Your task to perform on an android device: Go to location settings Image 0: 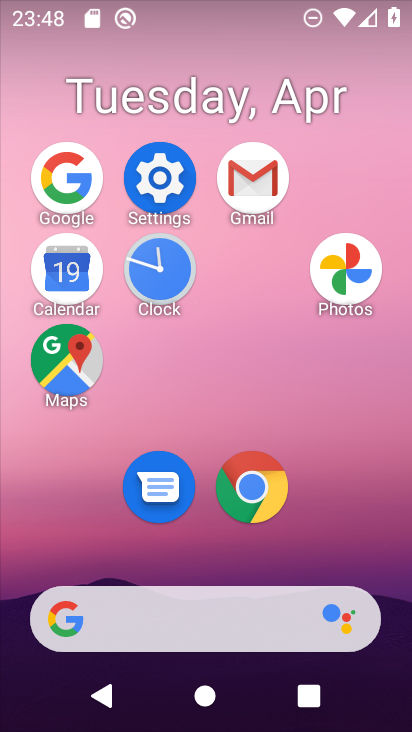
Step 0: click (253, 478)
Your task to perform on an android device: Go to location settings Image 1: 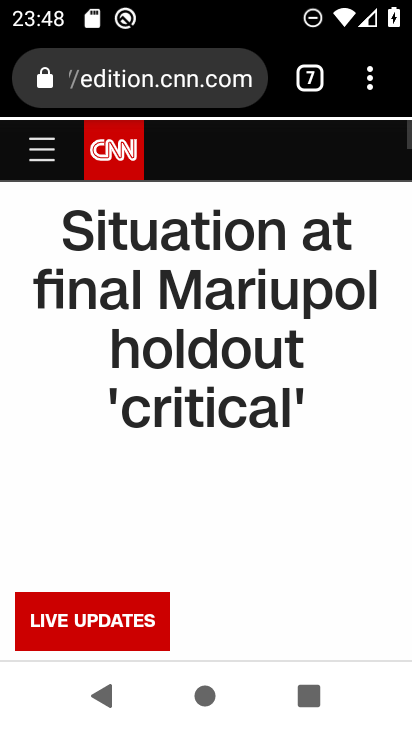
Step 1: press home button
Your task to perform on an android device: Go to location settings Image 2: 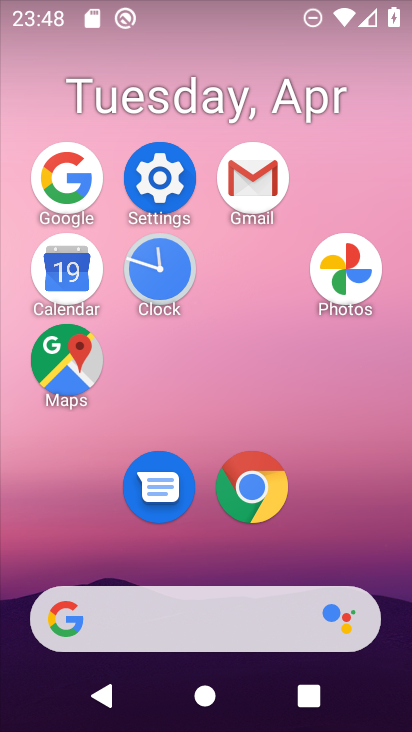
Step 2: click (178, 188)
Your task to perform on an android device: Go to location settings Image 3: 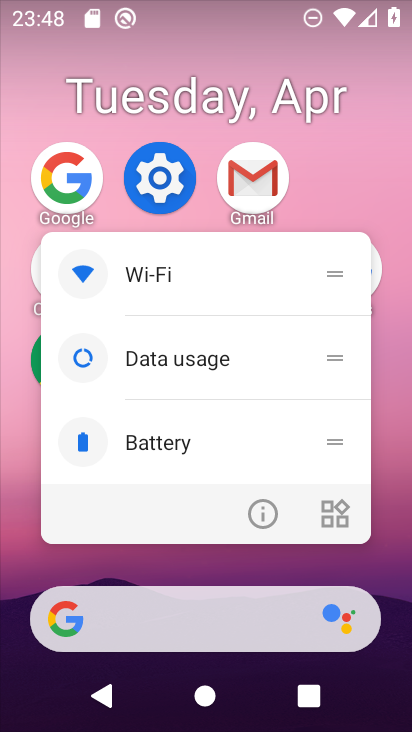
Step 3: click (170, 178)
Your task to perform on an android device: Go to location settings Image 4: 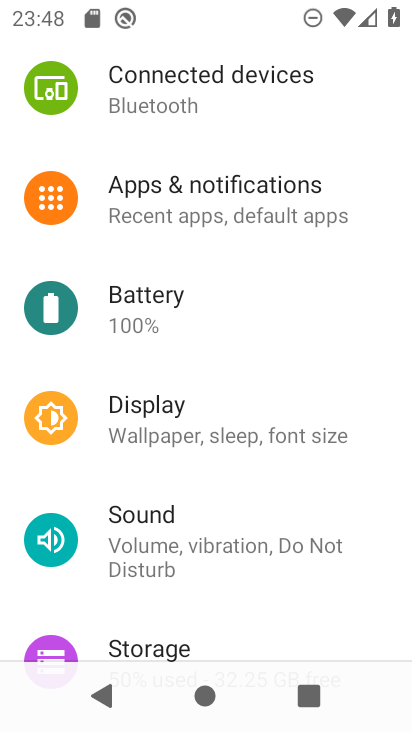
Step 4: drag from (250, 606) to (298, 244)
Your task to perform on an android device: Go to location settings Image 5: 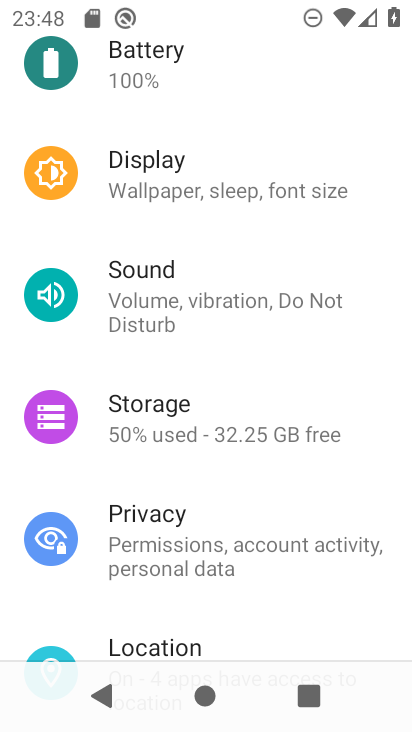
Step 5: drag from (269, 204) to (267, 591)
Your task to perform on an android device: Go to location settings Image 6: 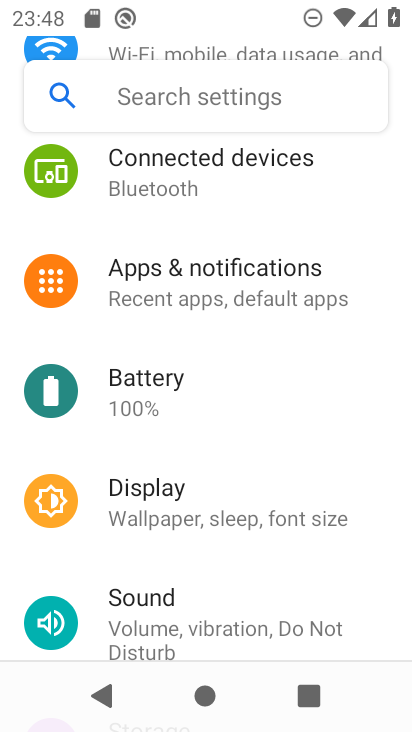
Step 6: drag from (248, 598) to (279, 159)
Your task to perform on an android device: Go to location settings Image 7: 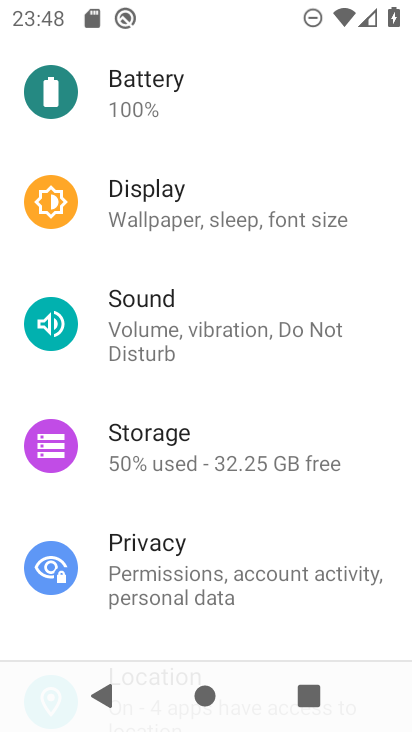
Step 7: drag from (255, 549) to (290, 233)
Your task to perform on an android device: Go to location settings Image 8: 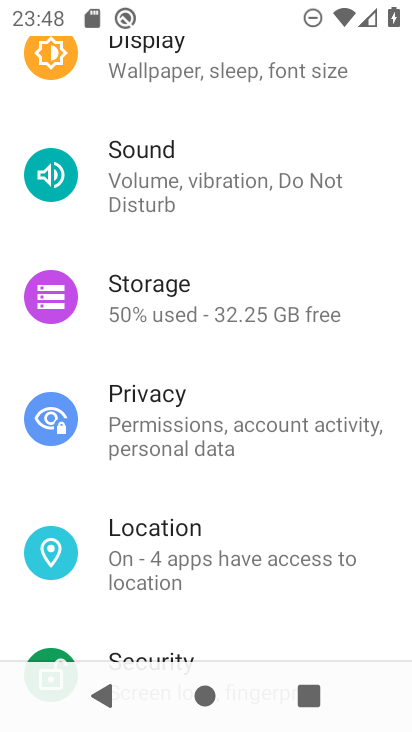
Step 8: click (248, 548)
Your task to perform on an android device: Go to location settings Image 9: 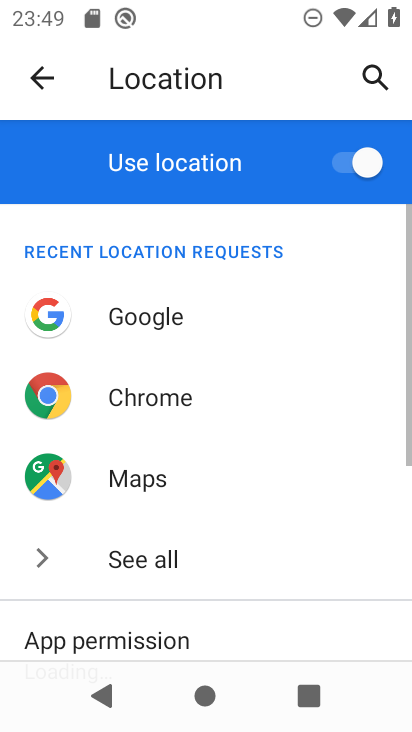
Step 9: drag from (248, 548) to (258, 202)
Your task to perform on an android device: Go to location settings Image 10: 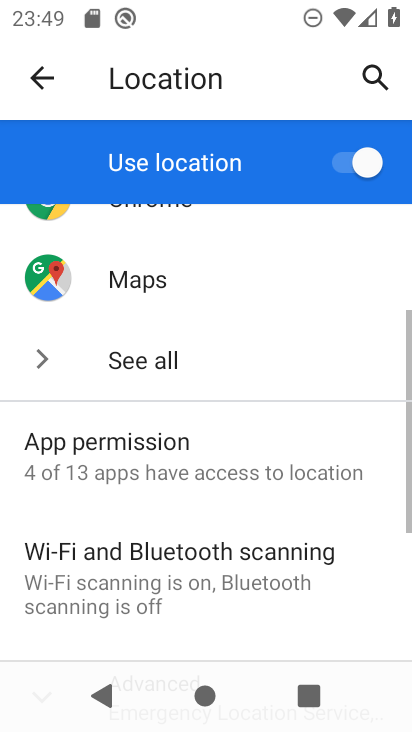
Step 10: drag from (211, 465) to (246, 150)
Your task to perform on an android device: Go to location settings Image 11: 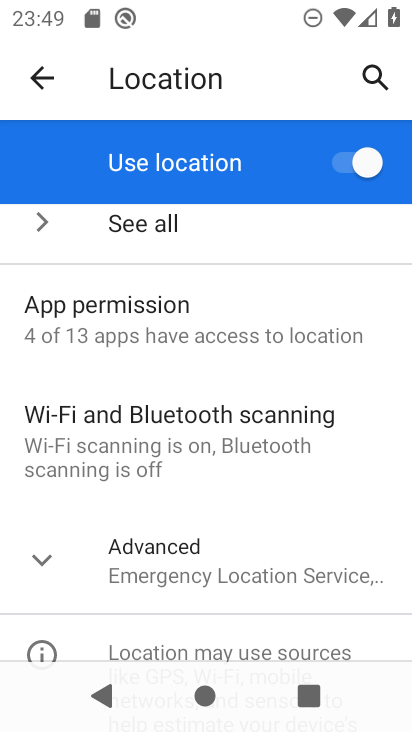
Step 11: click (161, 546)
Your task to perform on an android device: Go to location settings Image 12: 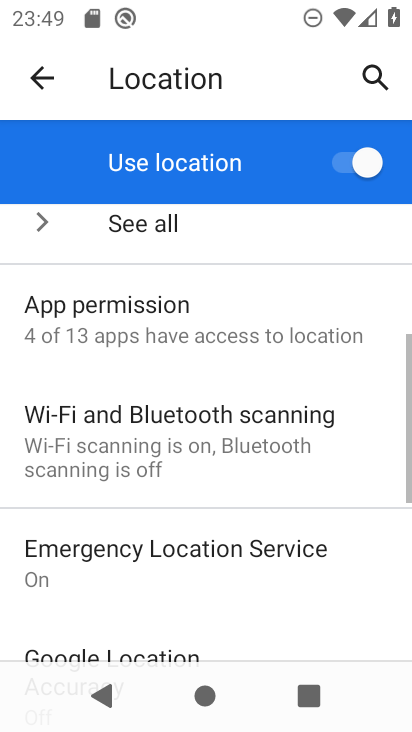
Step 12: task complete